Your task to perform on an android device: turn on notifications settings in the gmail app Image 0: 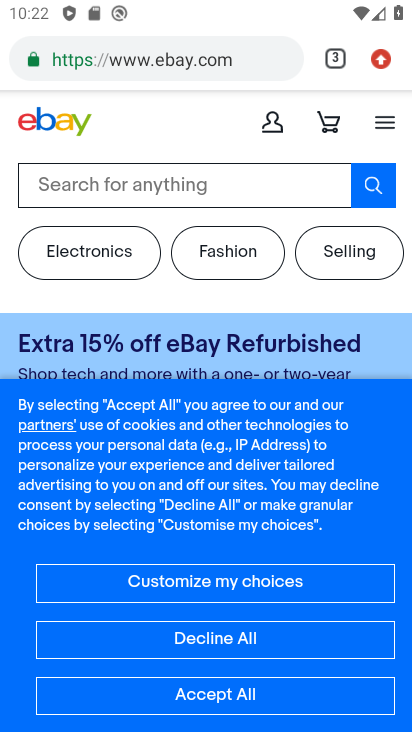
Step 0: press home button
Your task to perform on an android device: turn on notifications settings in the gmail app Image 1: 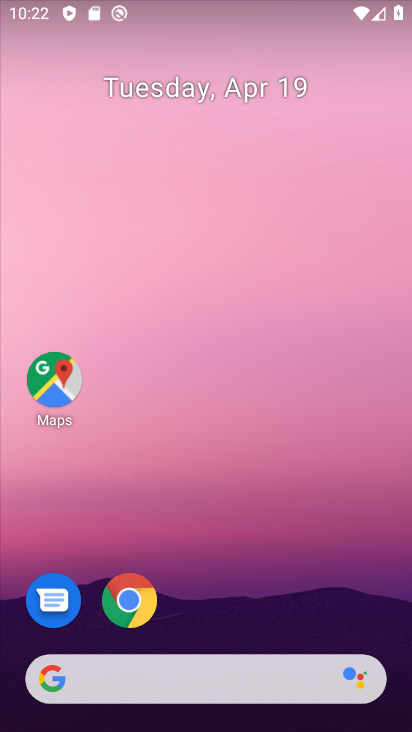
Step 1: drag from (200, 580) to (406, 250)
Your task to perform on an android device: turn on notifications settings in the gmail app Image 2: 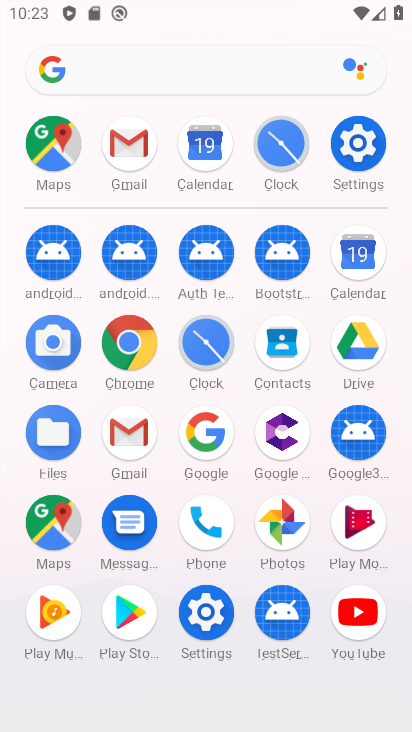
Step 2: click (129, 442)
Your task to perform on an android device: turn on notifications settings in the gmail app Image 3: 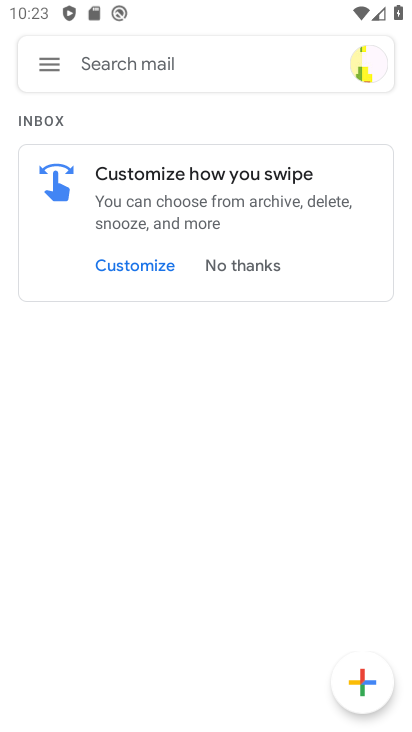
Step 3: click (52, 77)
Your task to perform on an android device: turn on notifications settings in the gmail app Image 4: 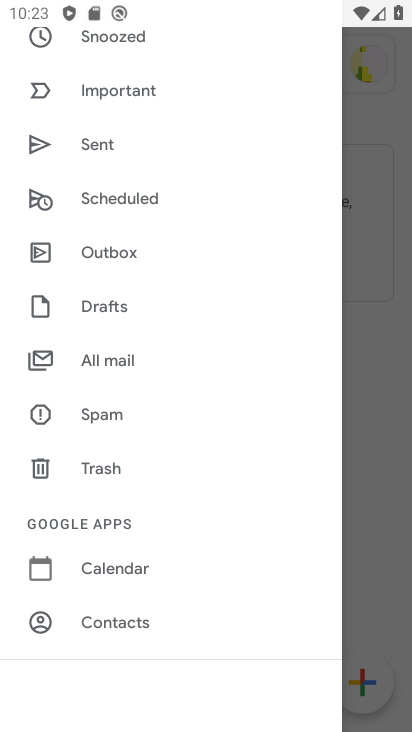
Step 4: drag from (110, 596) to (268, 52)
Your task to perform on an android device: turn on notifications settings in the gmail app Image 5: 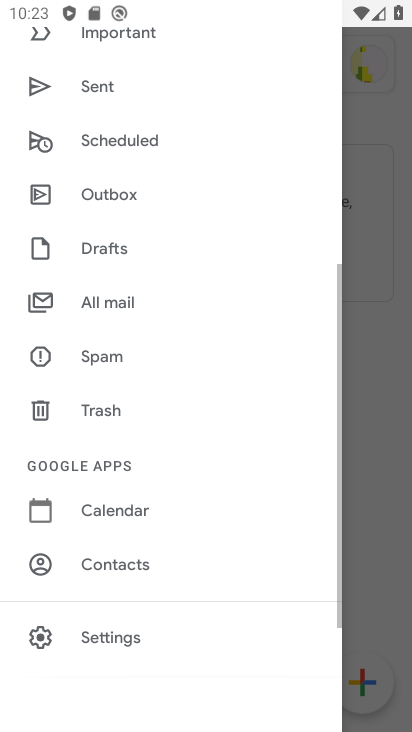
Step 5: click (122, 589)
Your task to perform on an android device: turn on notifications settings in the gmail app Image 6: 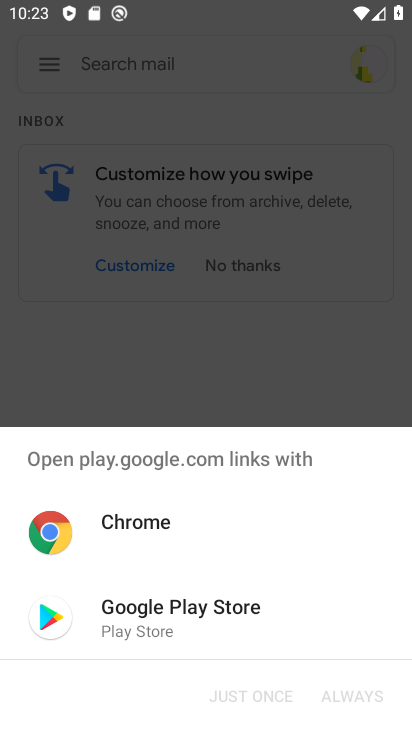
Step 6: click (123, 323)
Your task to perform on an android device: turn on notifications settings in the gmail app Image 7: 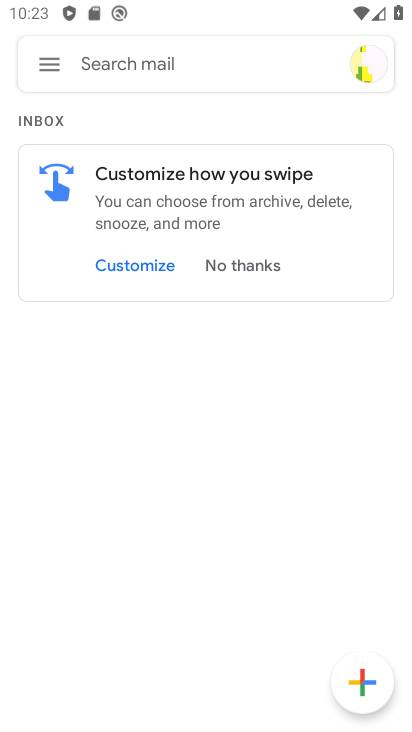
Step 7: click (51, 65)
Your task to perform on an android device: turn on notifications settings in the gmail app Image 8: 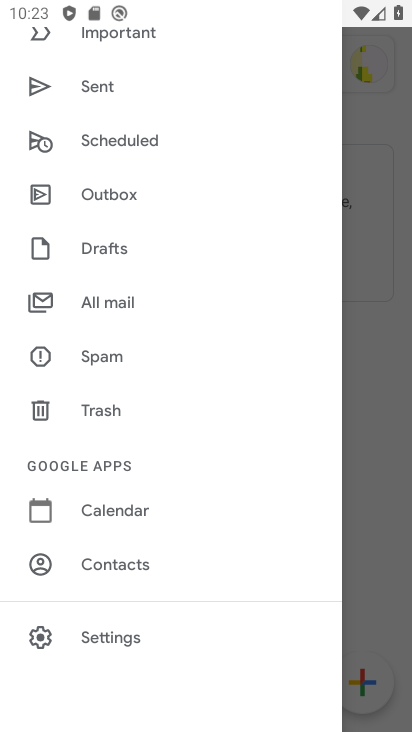
Step 8: click (112, 640)
Your task to perform on an android device: turn on notifications settings in the gmail app Image 9: 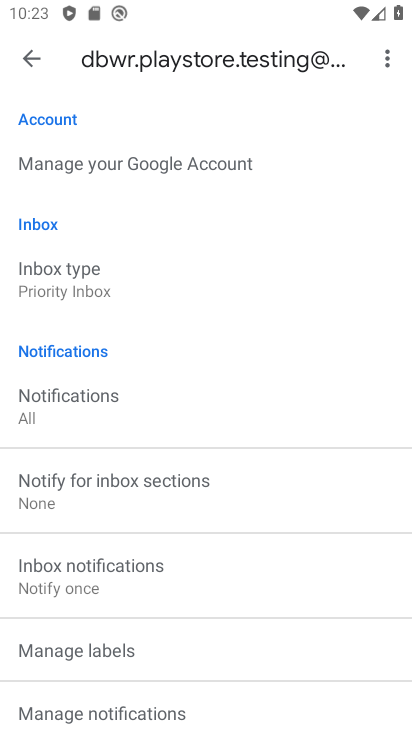
Step 9: click (44, 60)
Your task to perform on an android device: turn on notifications settings in the gmail app Image 10: 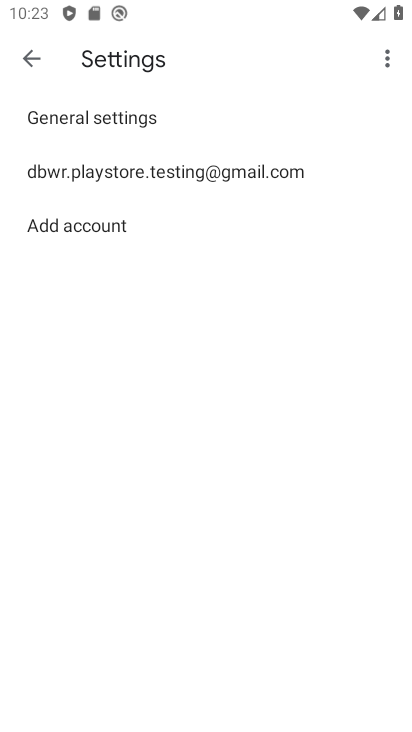
Step 10: click (115, 124)
Your task to perform on an android device: turn on notifications settings in the gmail app Image 11: 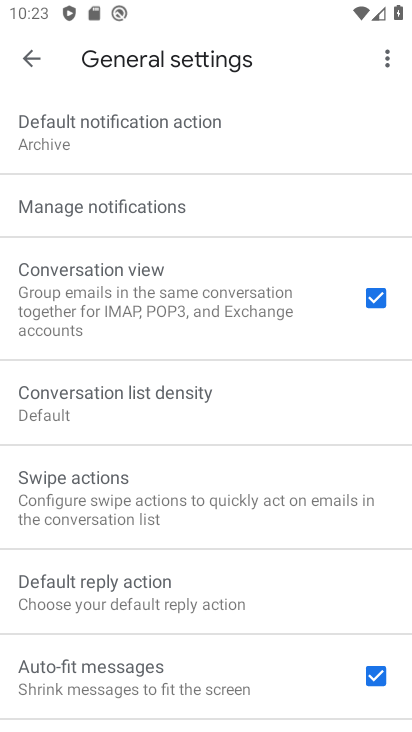
Step 11: click (125, 213)
Your task to perform on an android device: turn on notifications settings in the gmail app Image 12: 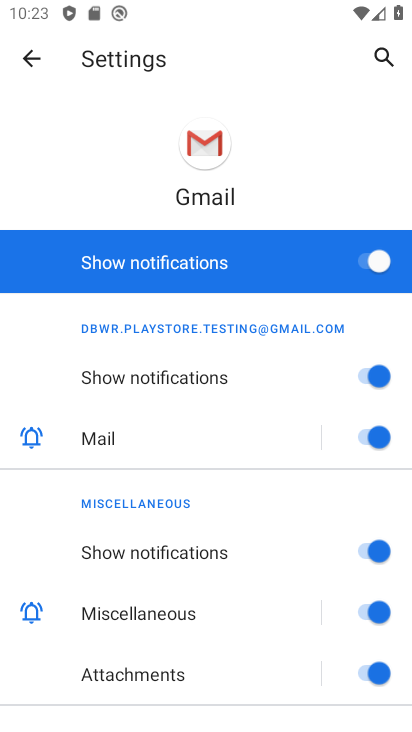
Step 12: task complete